Your task to perform on an android device: turn off picture-in-picture Image 0: 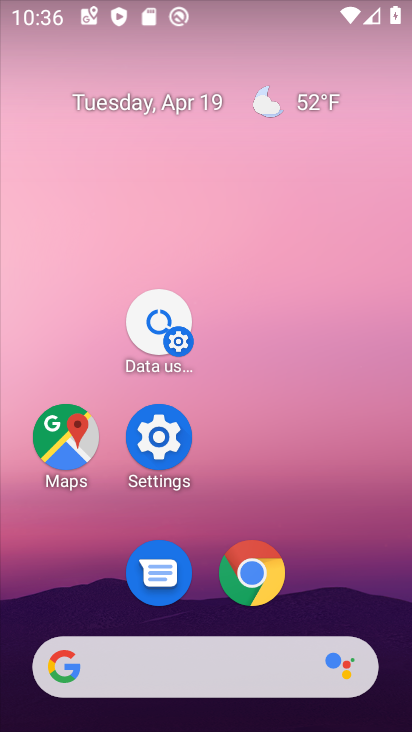
Step 0: click (251, 575)
Your task to perform on an android device: turn off picture-in-picture Image 1: 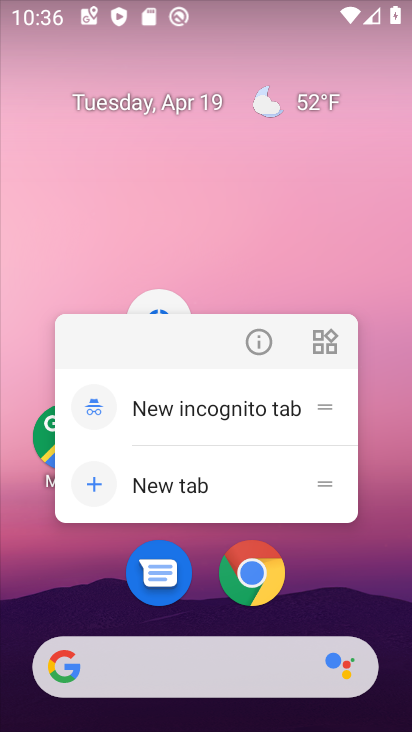
Step 1: click (253, 340)
Your task to perform on an android device: turn off picture-in-picture Image 2: 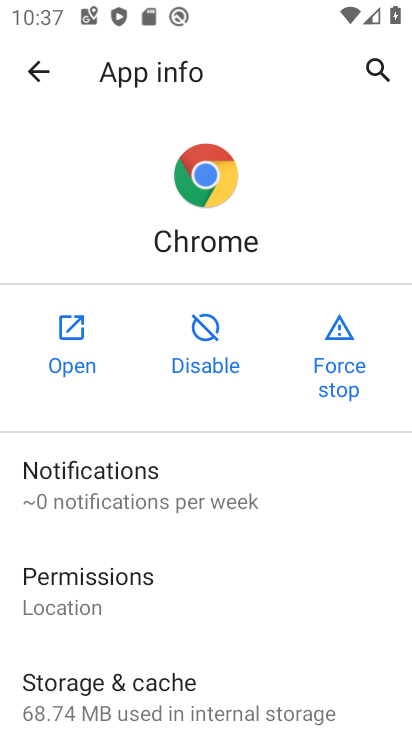
Step 2: drag from (244, 596) to (260, 143)
Your task to perform on an android device: turn off picture-in-picture Image 3: 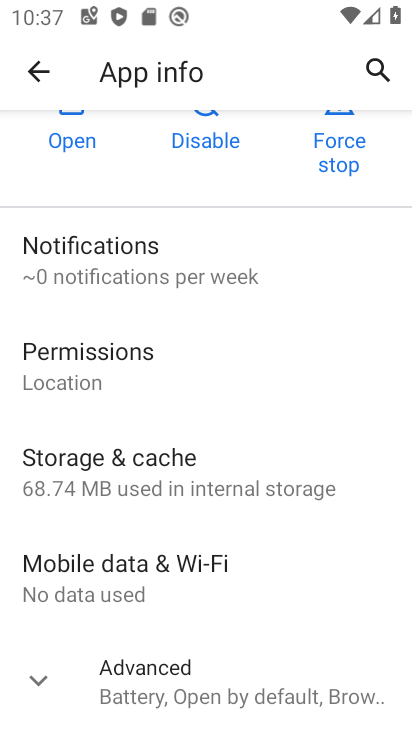
Step 3: drag from (255, 501) to (262, 128)
Your task to perform on an android device: turn off picture-in-picture Image 4: 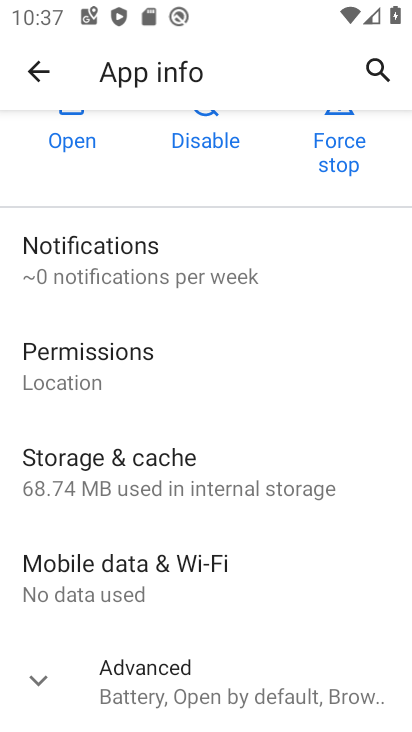
Step 4: click (35, 686)
Your task to perform on an android device: turn off picture-in-picture Image 5: 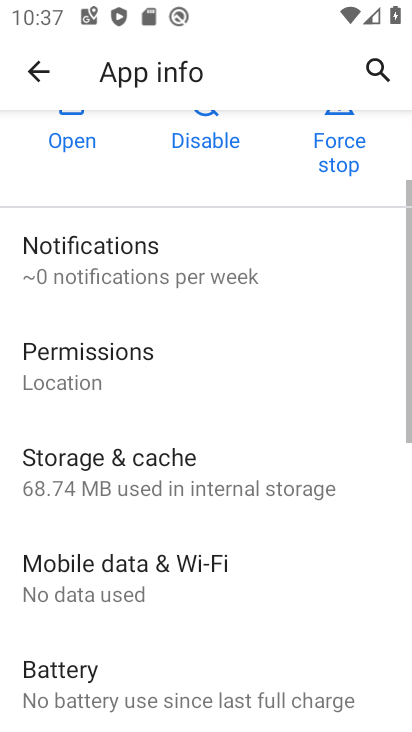
Step 5: drag from (200, 679) to (205, 216)
Your task to perform on an android device: turn off picture-in-picture Image 6: 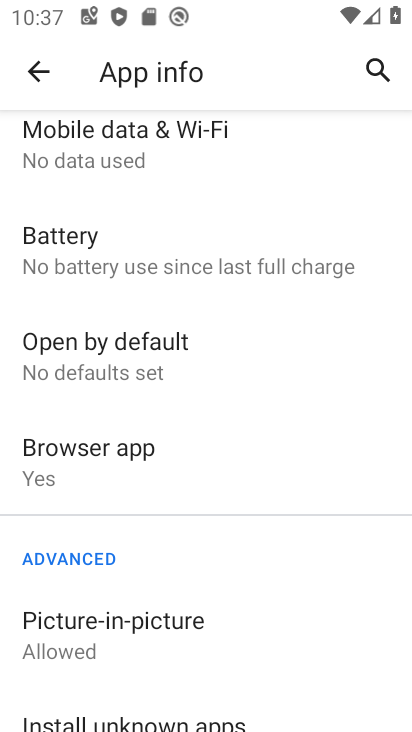
Step 6: drag from (220, 597) to (220, 352)
Your task to perform on an android device: turn off picture-in-picture Image 7: 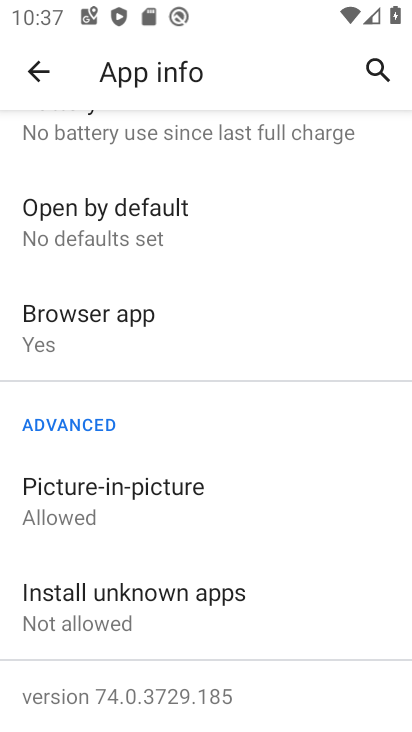
Step 7: click (90, 500)
Your task to perform on an android device: turn off picture-in-picture Image 8: 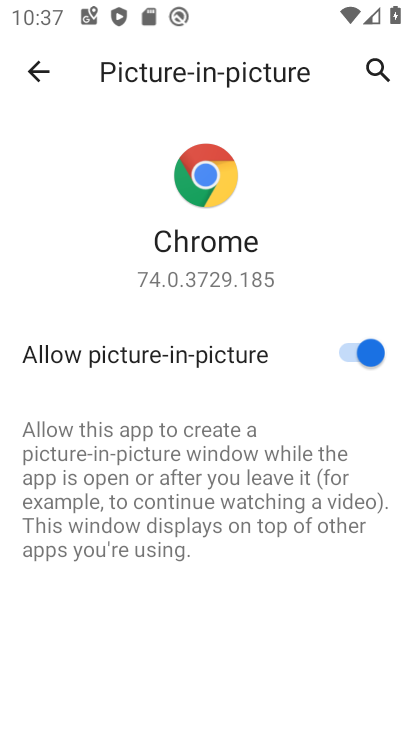
Step 8: click (360, 357)
Your task to perform on an android device: turn off picture-in-picture Image 9: 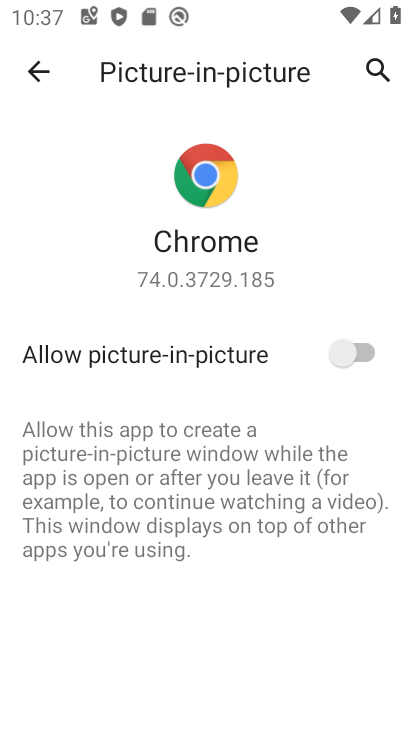
Step 9: task complete